Your task to perform on an android device: change the clock display to analog Image 0: 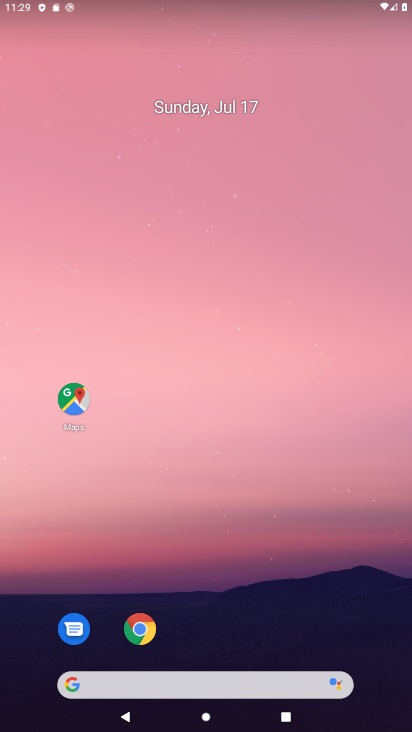
Step 0: press home button
Your task to perform on an android device: change the clock display to analog Image 1: 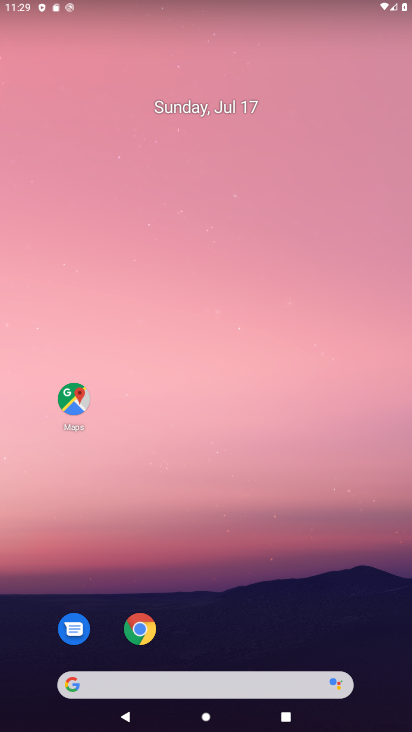
Step 1: drag from (263, 710) to (232, 71)
Your task to perform on an android device: change the clock display to analog Image 2: 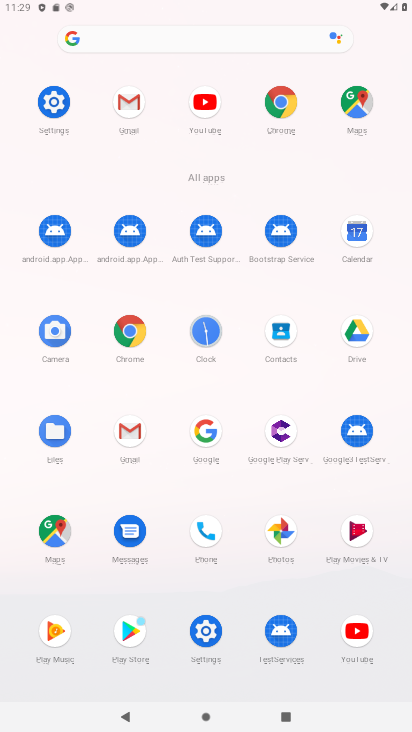
Step 2: click (200, 338)
Your task to perform on an android device: change the clock display to analog Image 3: 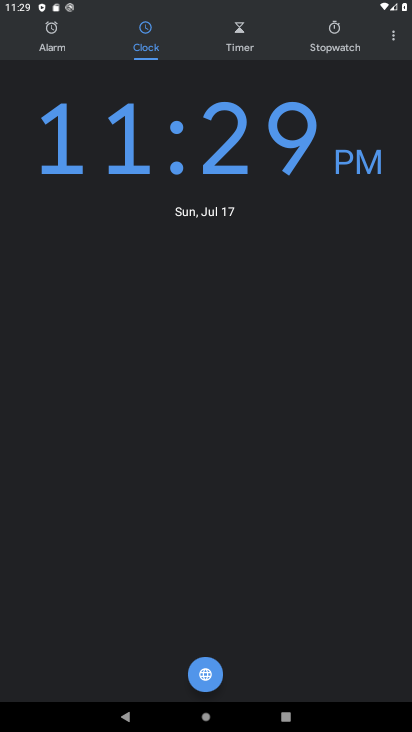
Step 3: click (383, 34)
Your task to perform on an android device: change the clock display to analog Image 4: 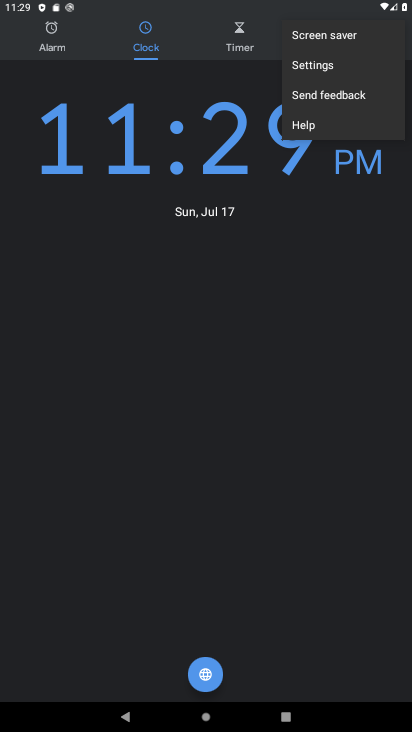
Step 4: click (310, 75)
Your task to perform on an android device: change the clock display to analog Image 5: 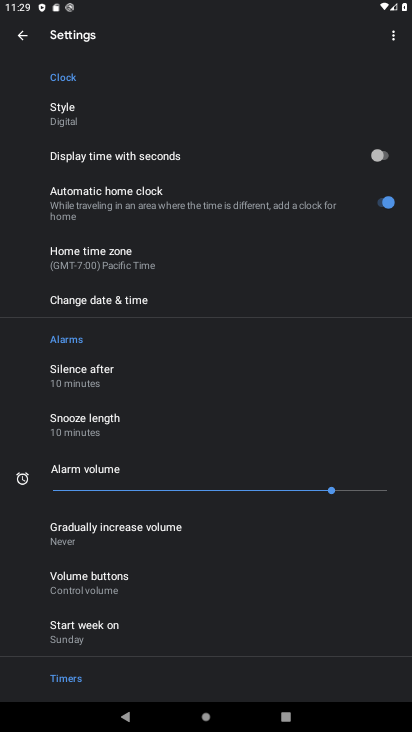
Step 5: click (72, 119)
Your task to perform on an android device: change the clock display to analog Image 6: 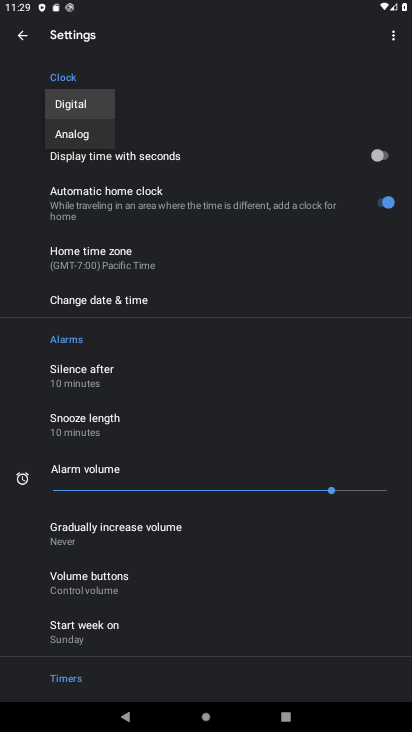
Step 6: click (72, 132)
Your task to perform on an android device: change the clock display to analog Image 7: 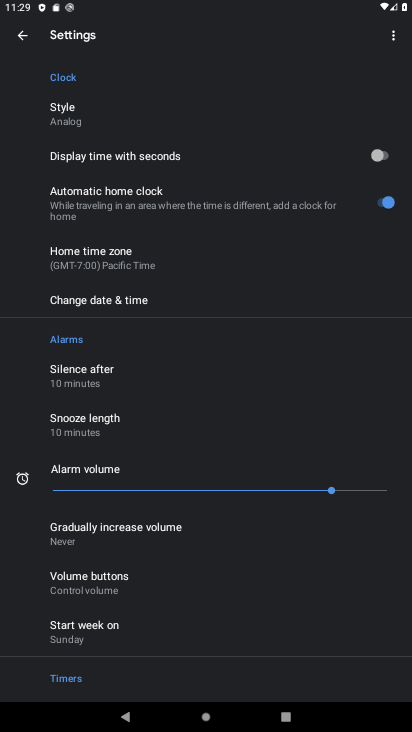
Step 7: task complete